Your task to perform on an android device: toggle pop-ups in chrome Image 0: 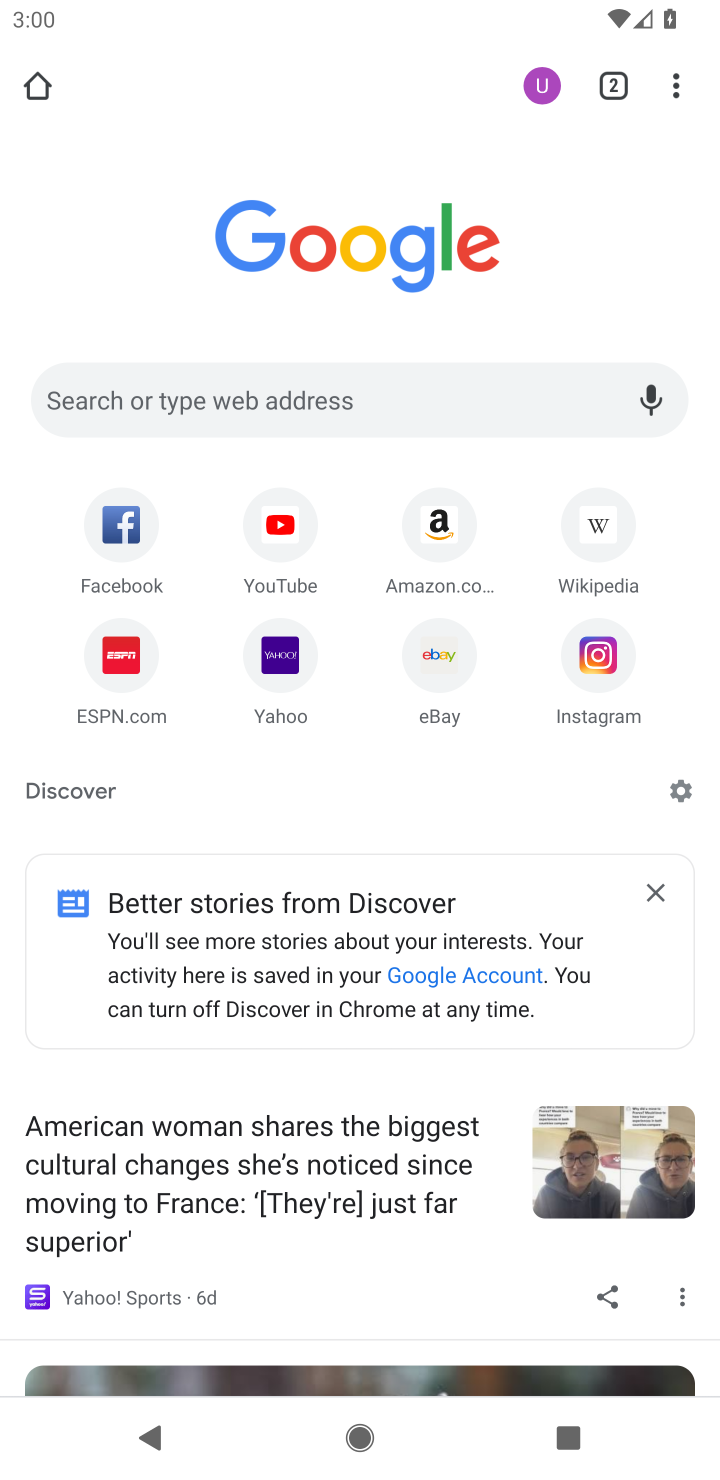
Step 0: click (678, 81)
Your task to perform on an android device: toggle pop-ups in chrome Image 1: 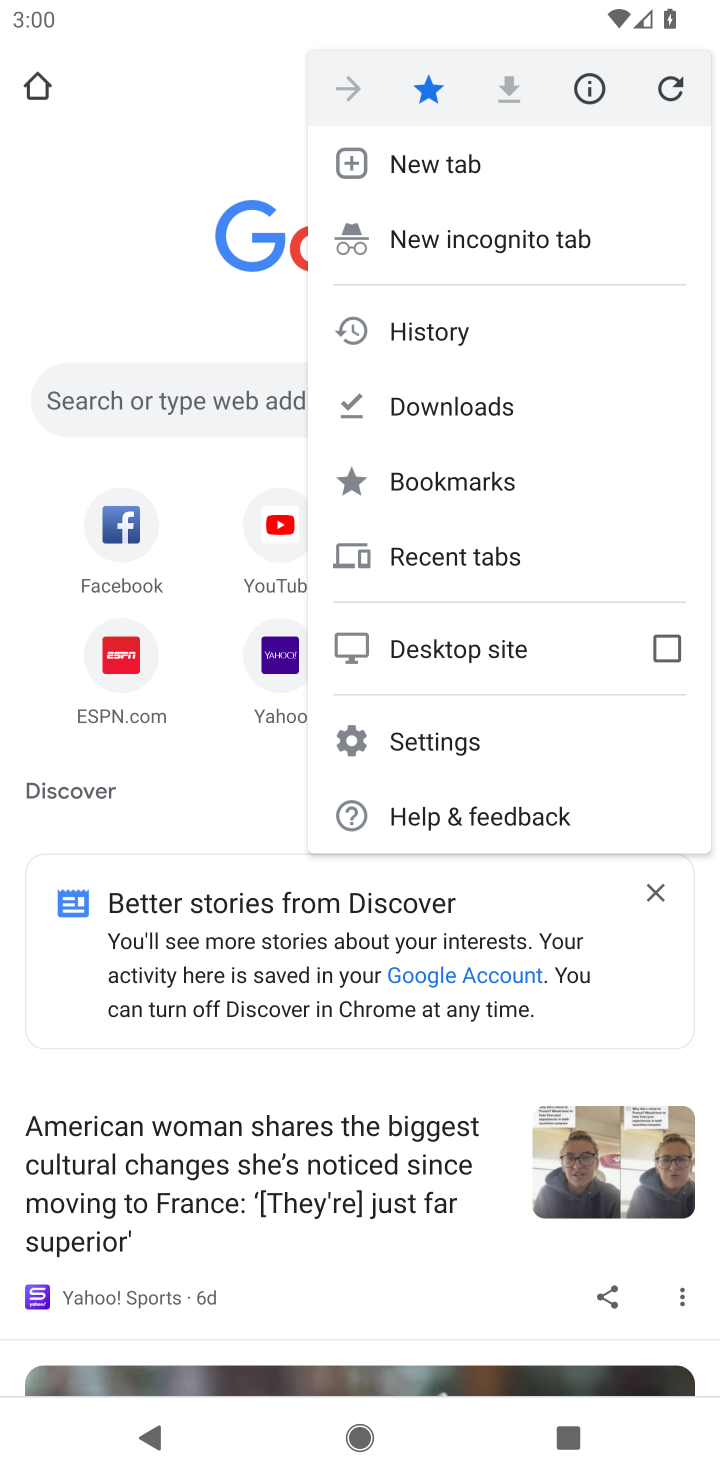
Step 1: click (376, 724)
Your task to perform on an android device: toggle pop-ups in chrome Image 2: 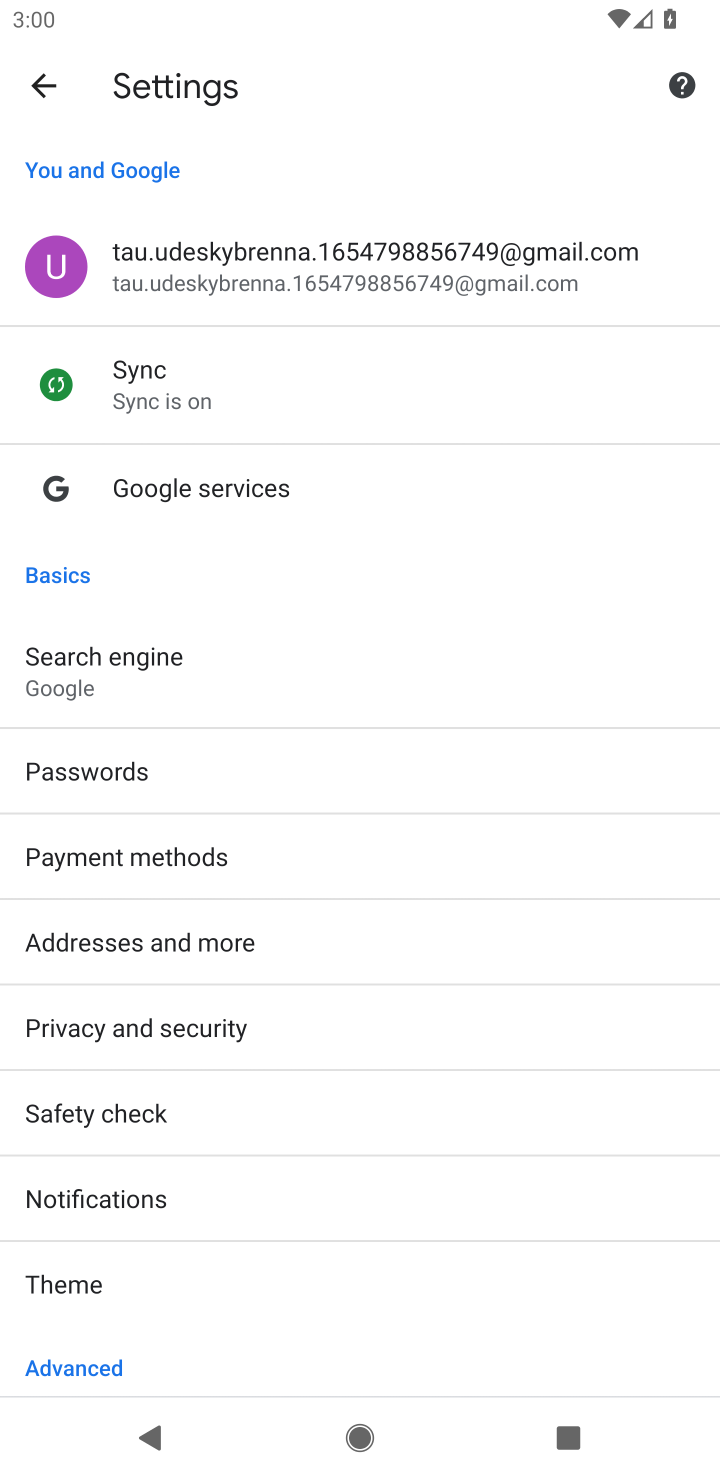
Step 2: drag from (319, 1260) to (328, 218)
Your task to perform on an android device: toggle pop-ups in chrome Image 3: 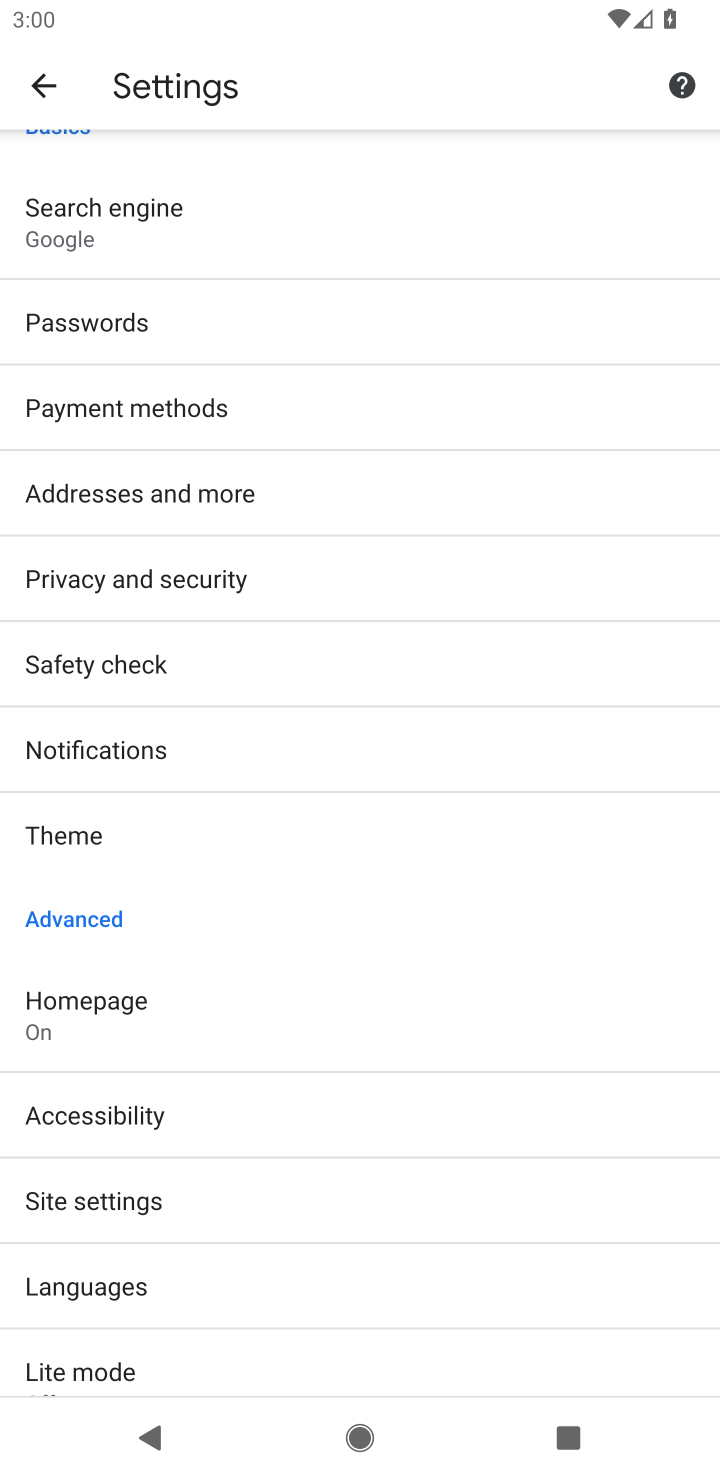
Step 3: click (245, 1214)
Your task to perform on an android device: toggle pop-ups in chrome Image 4: 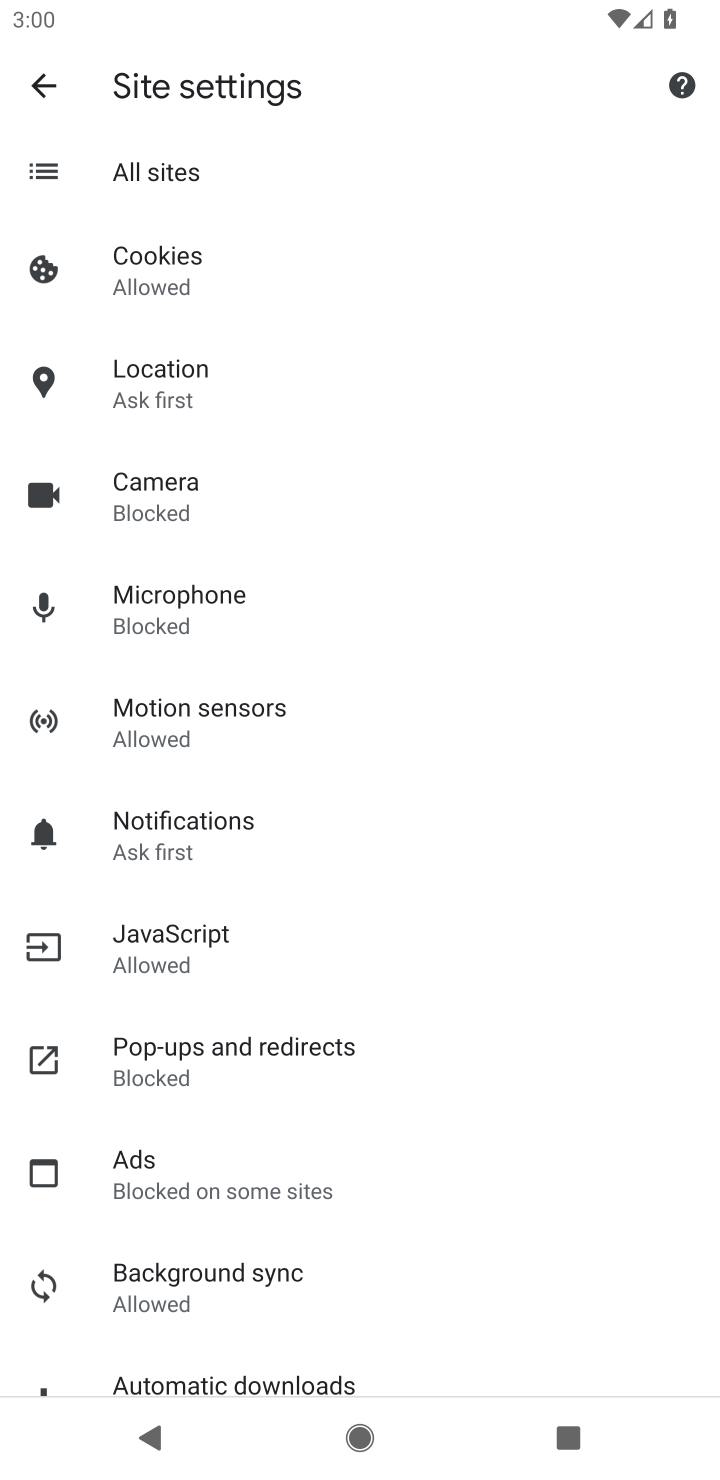
Step 4: click (184, 1077)
Your task to perform on an android device: toggle pop-ups in chrome Image 5: 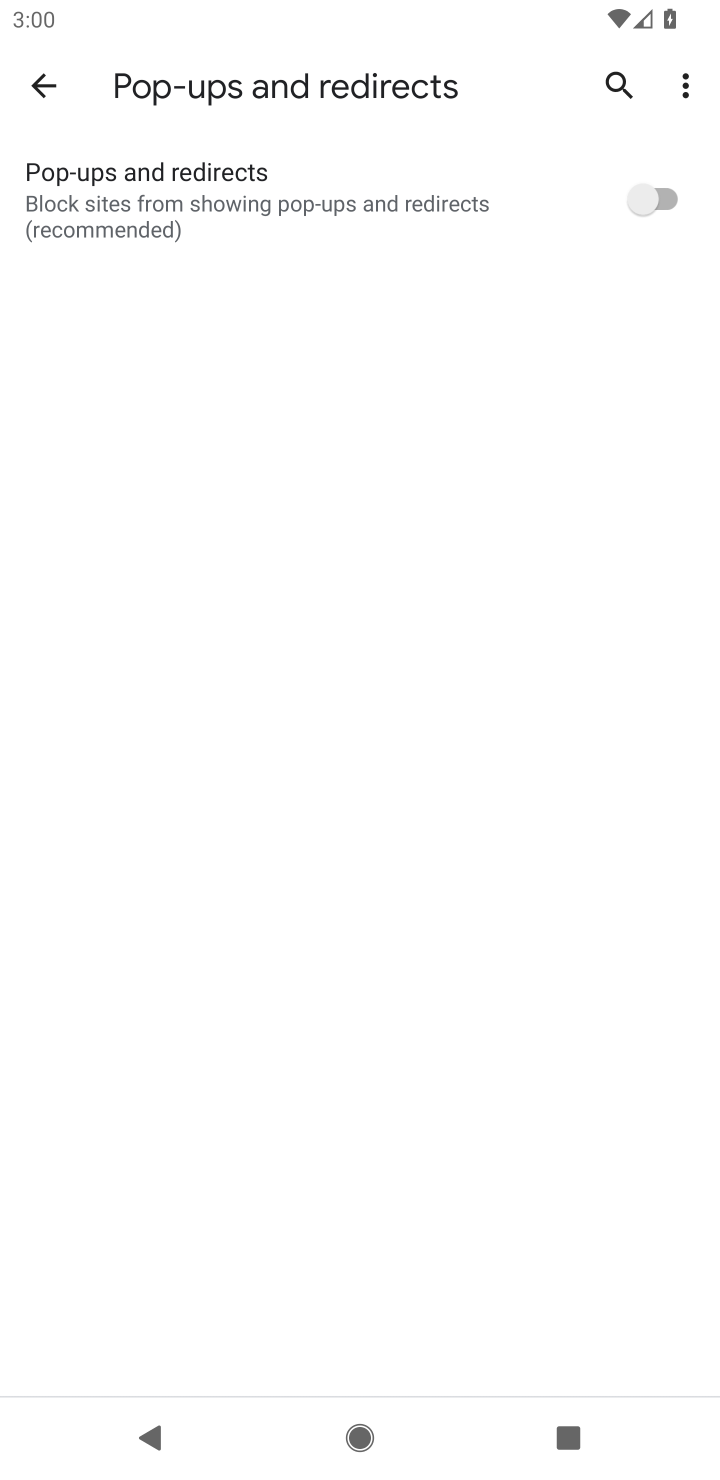
Step 5: click (652, 197)
Your task to perform on an android device: toggle pop-ups in chrome Image 6: 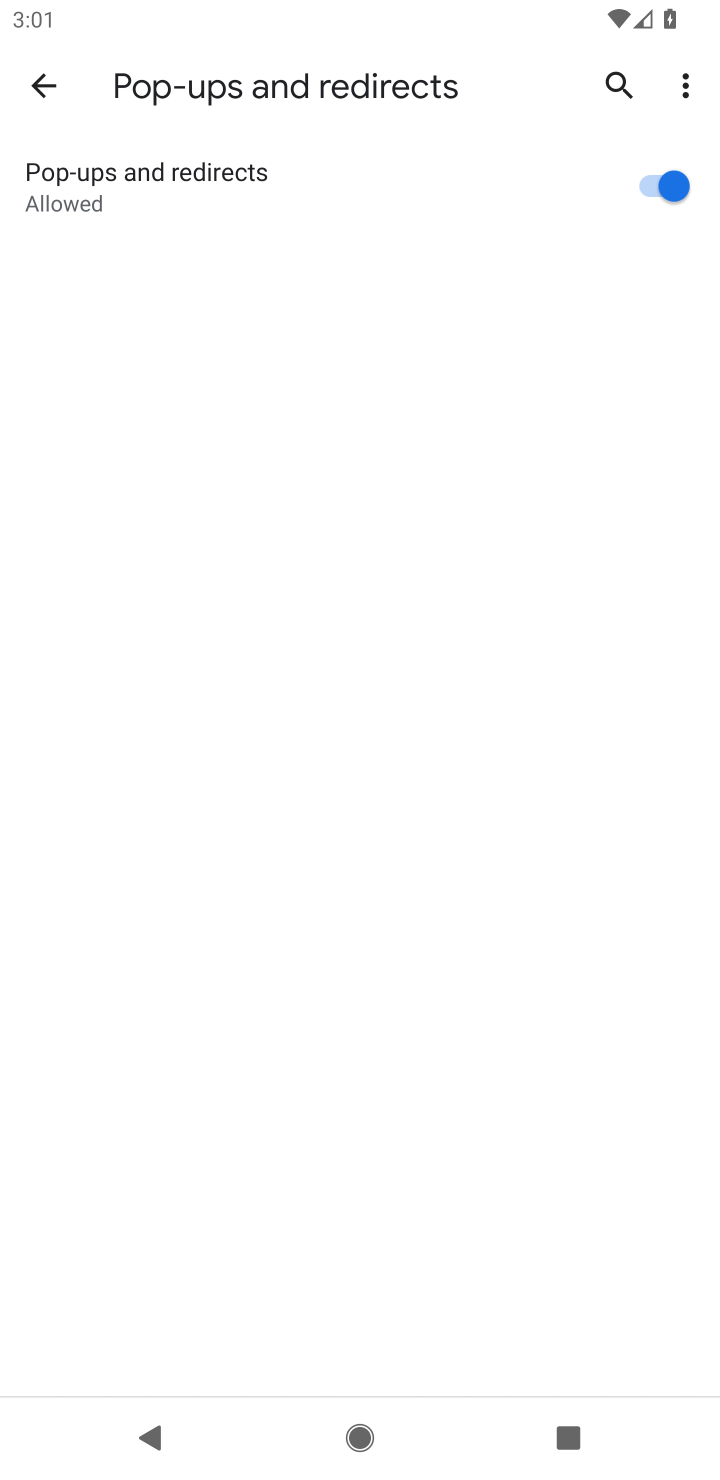
Step 6: task complete